Your task to perform on an android device: read, delete, or share a saved page in the chrome app Image 0: 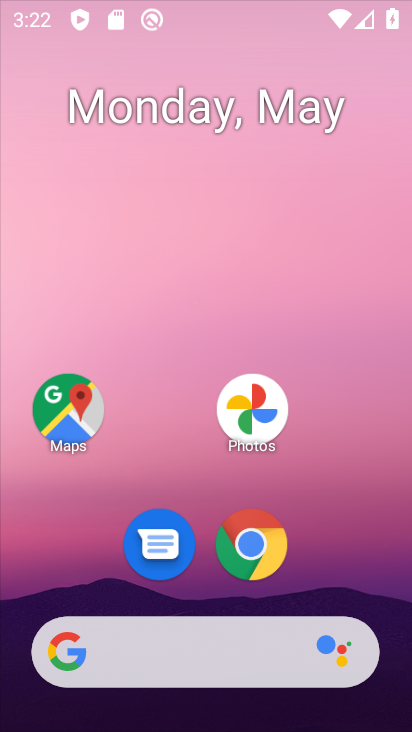
Step 0: drag from (292, 641) to (323, 0)
Your task to perform on an android device: read, delete, or share a saved page in the chrome app Image 1: 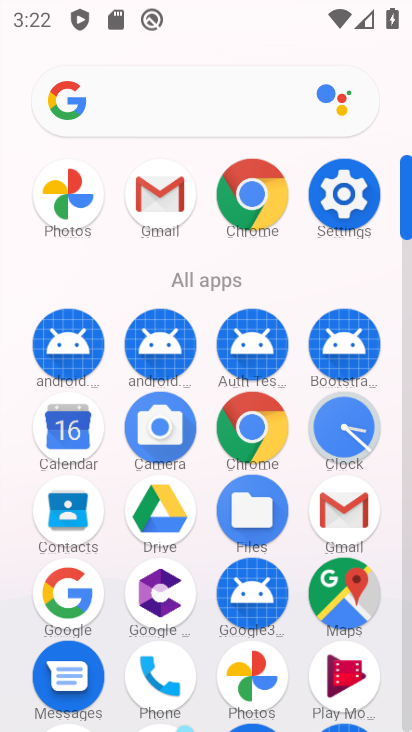
Step 1: click (239, 439)
Your task to perform on an android device: read, delete, or share a saved page in the chrome app Image 2: 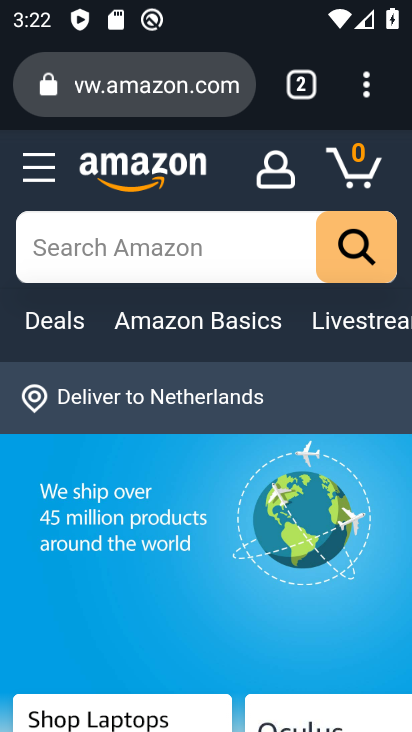
Step 2: task complete